Your task to perform on an android device: all mails in gmail Image 0: 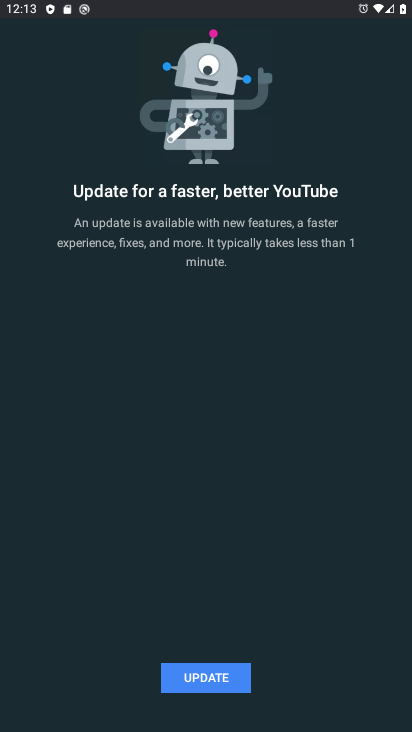
Step 0: press back button
Your task to perform on an android device: all mails in gmail Image 1: 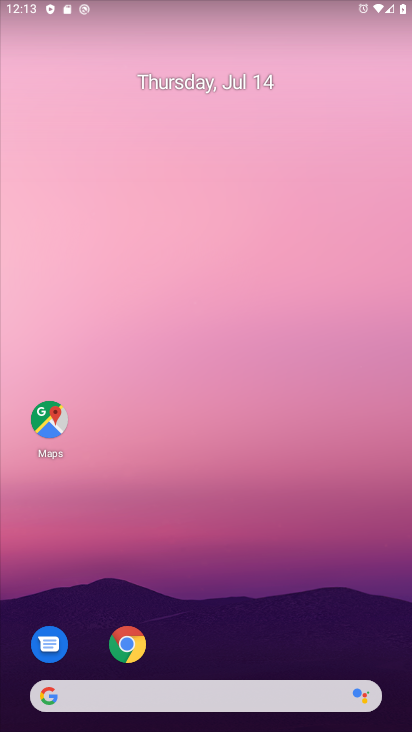
Step 1: drag from (211, 662) to (187, 183)
Your task to perform on an android device: all mails in gmail Image 2: 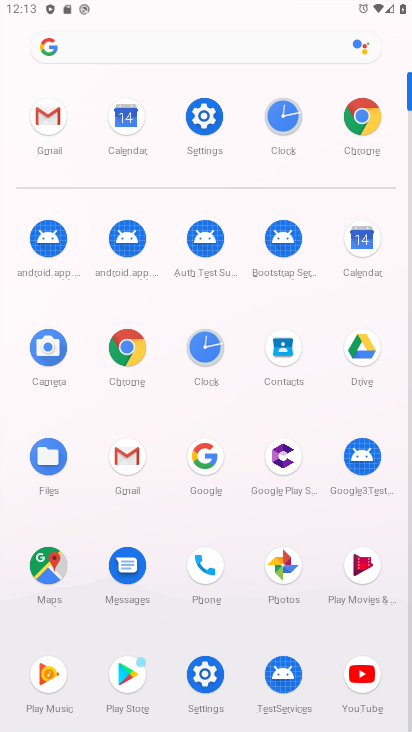
Step 2: click (129, 475)
Your task to perform on an android device: all mails in gmail Image 3: 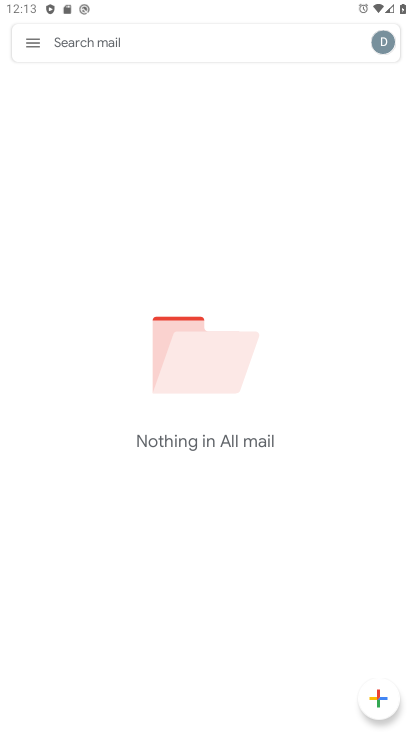
Step 3: task complete